Your task to perform on an android device: What's on my calendar today? Image 0: 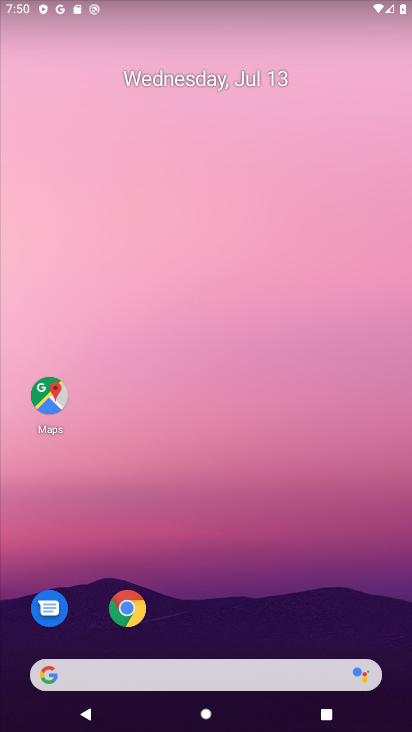
Step 0: drag from (262, 667) to (176, 252)
Your task to perform on an android device: What's on my calendar today? Image 1: 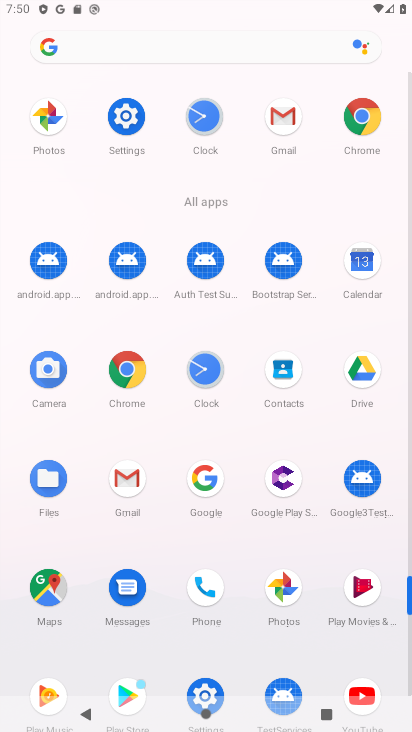
Step 1: click (364, 277)
Your task to perform on an android device: What's on my calendar today? Image 2: 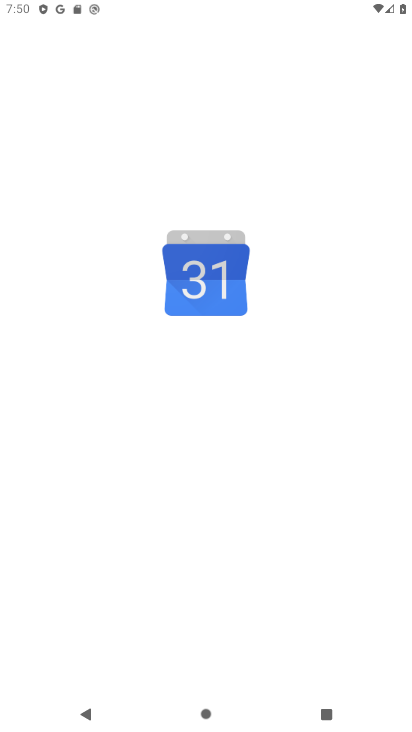
Step 2: click (367, 266)
Your task to perform on an android device: What's on my calendar today? Image 3: 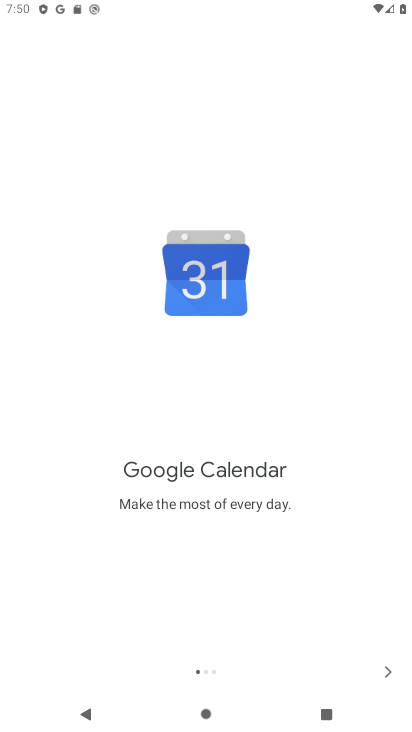
Step 3: click (391, 665)
Your task to perform on an android device: What's on my calendar today? Image 4: 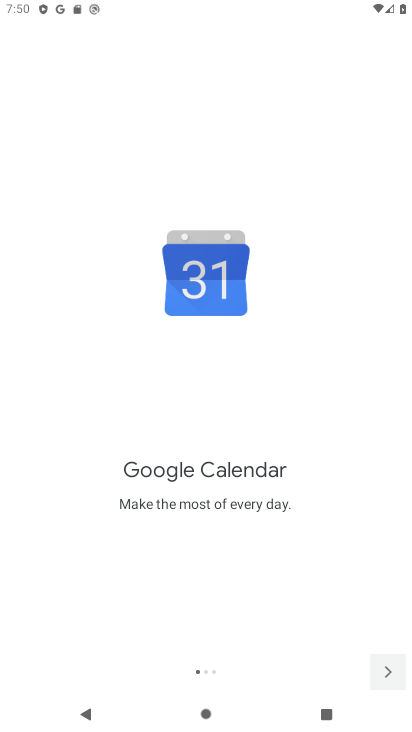
Step 4: click (391, 665)
Your task to perform on an android device: What's on my calendar today? Image 5: 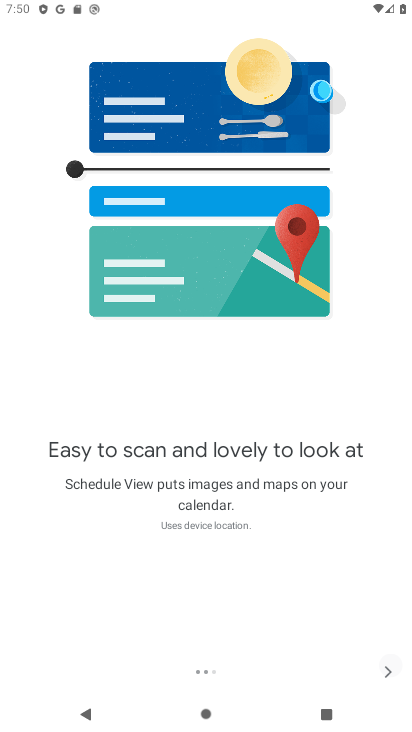
Step 5: click (387, 664)
Your task to perform on an android device: What's on my calendar today? Image 6: 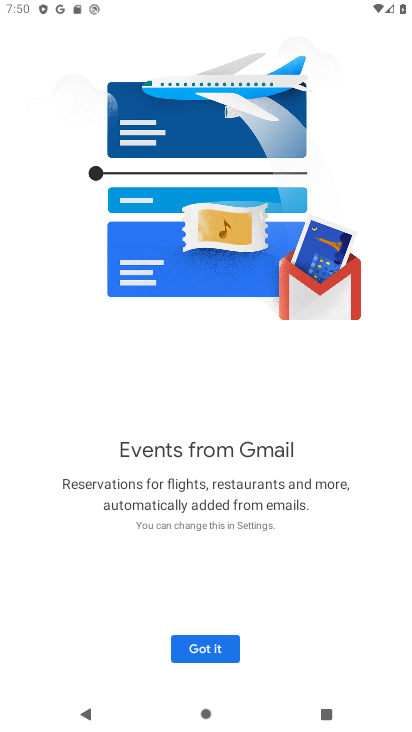
Step 6: click (387, 668)
Your task to perform on an android device: What's on my calendar today? Image 7: 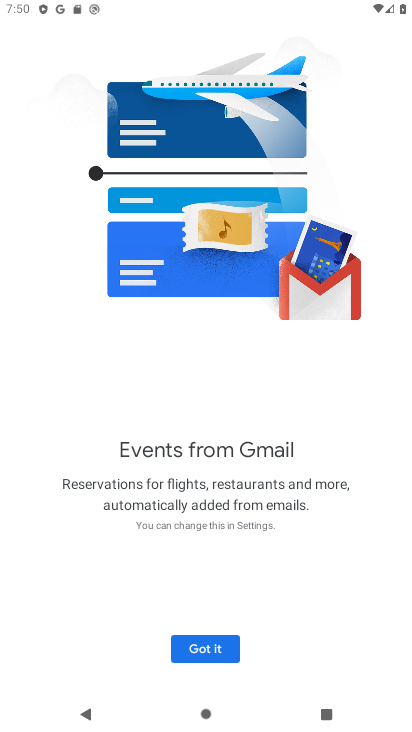
Step 7: click (207, 647)
Your task to perform on an android device: What's on my calendar today? Image 8: 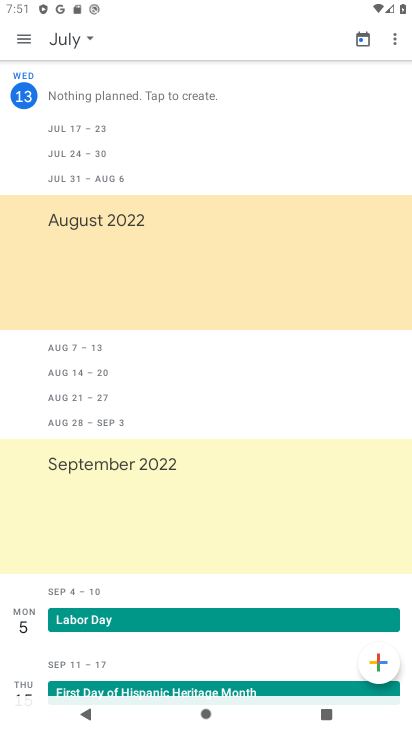
Step 8: click (90, 43)
Your task to perform on an android device: What's on my calendar today? Image 9: 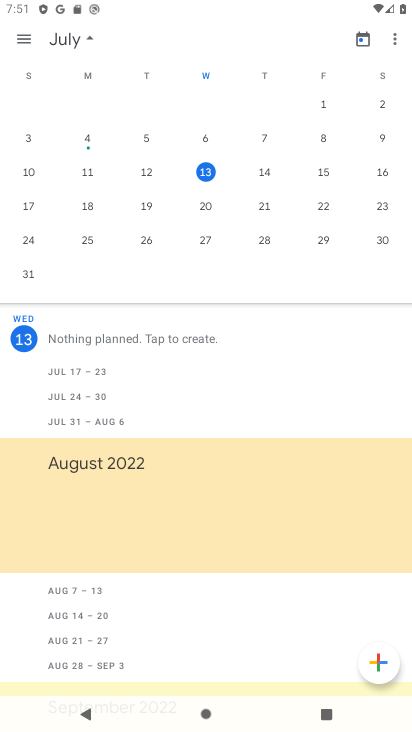
Step 9: click (262, 178)
Your task to perform on an android device: What's on my calendar today? Image 10: 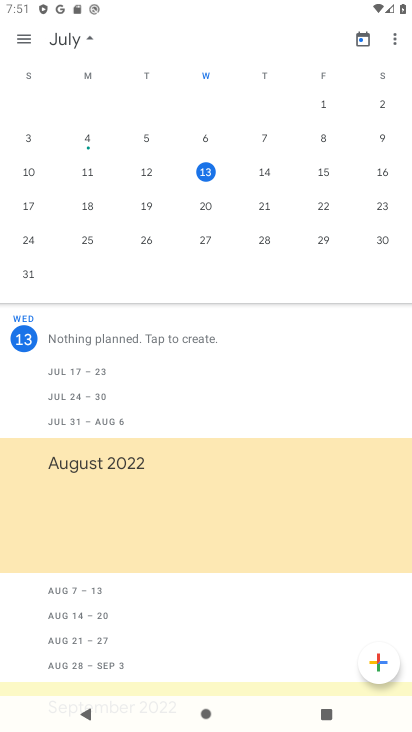
Step 10: click (260, 166)
Your task to perform on an android device: What's on my calendar today? Image 11: 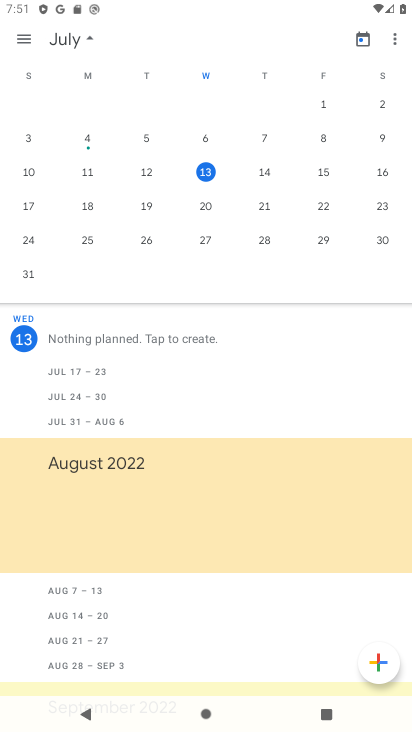
Step 11: click (269, 173)
Your task to perform on an android device: What's on my calendar today? Image 12: 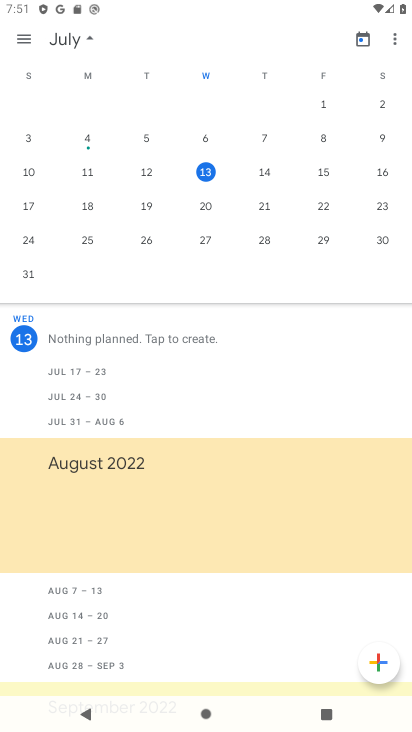
Step 12: click (269, 172)
Your task to perform on an android device: What's on my calendar today? Image 13: 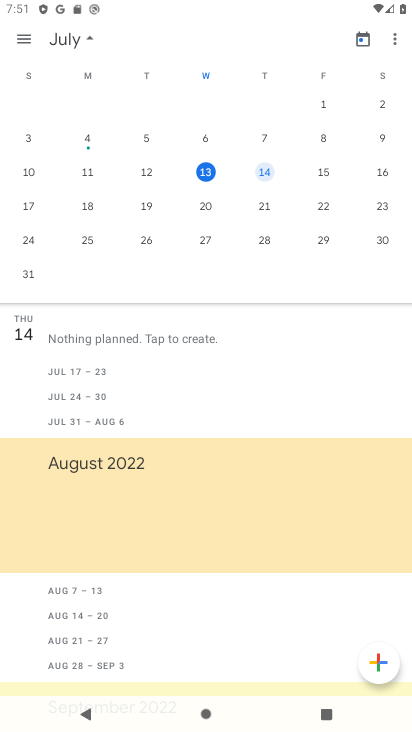
Step 13: click (269, 172)
Your task to perform on an android device: What's on my calendar today? Image 14: 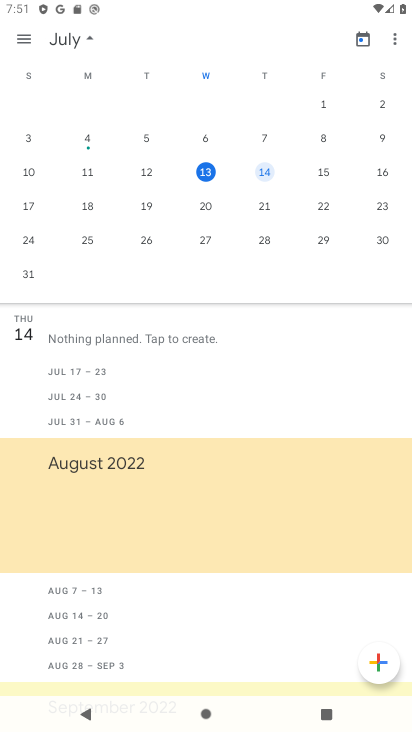
Step 14: click (270, 172)
Your task to perform on an android device: What's on my calendar today? Image 15: 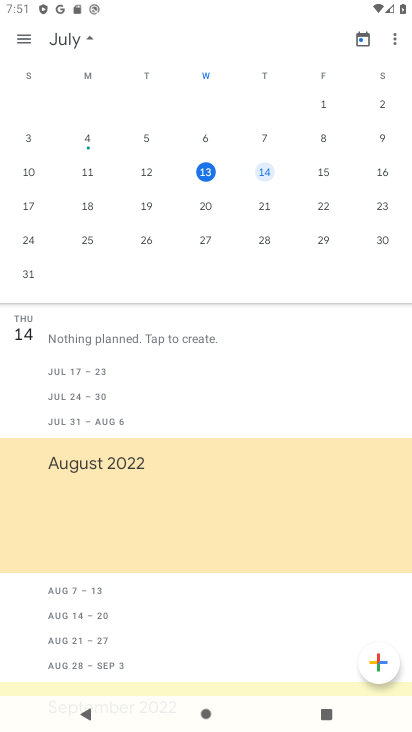
Step 15: click (270, 172)
Your task to perform on an android device: What's on my calendar today? Image 16: 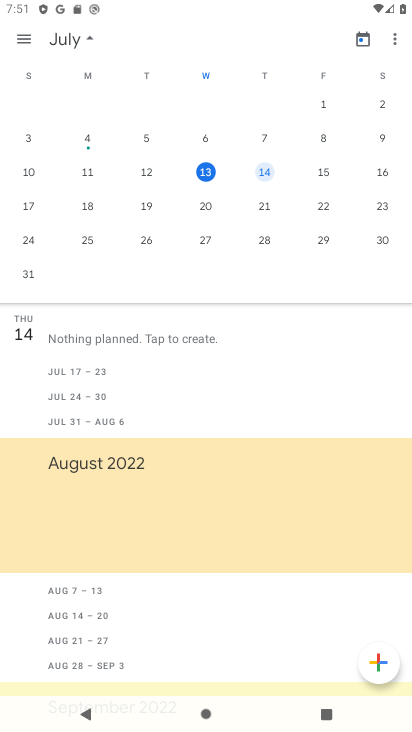
Step 16: task complete